Your task to perform on an android device: change keyboard looks Image 0: 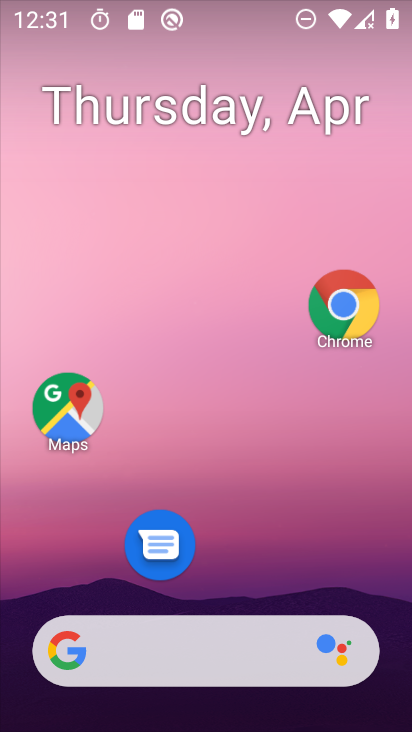
Step 0: drag from (248, 579) to (306, 60)
Your task to perform on an android device: change keyboard looks Image 1: 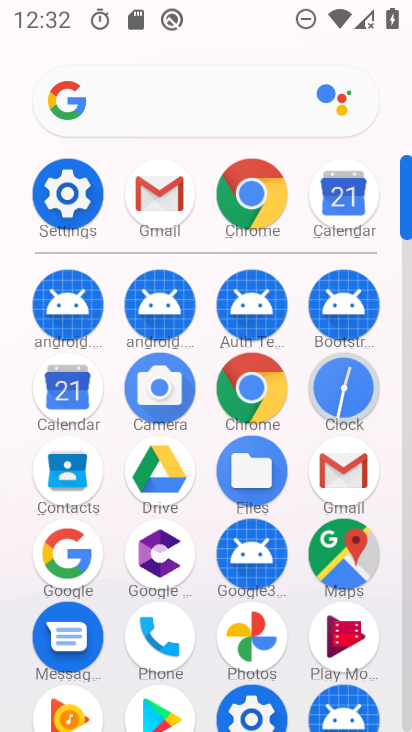
Step 1: click (79, 226)
Your task to perform on an android device: change keyboard looks Image 2: 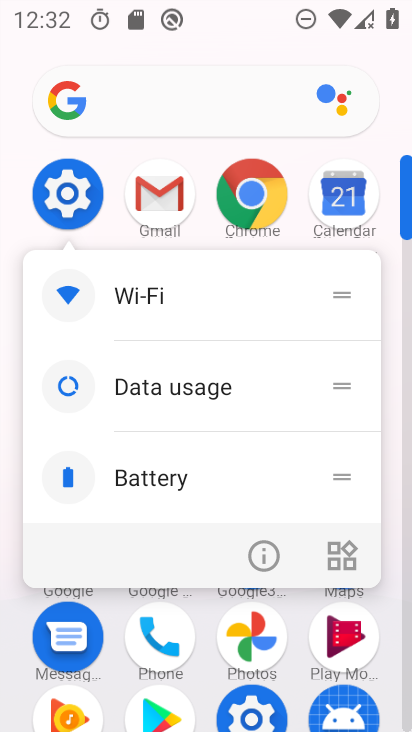
Step 2: click (69, 189)
Your task to perform on an android device: change keyboard looks Image 3: 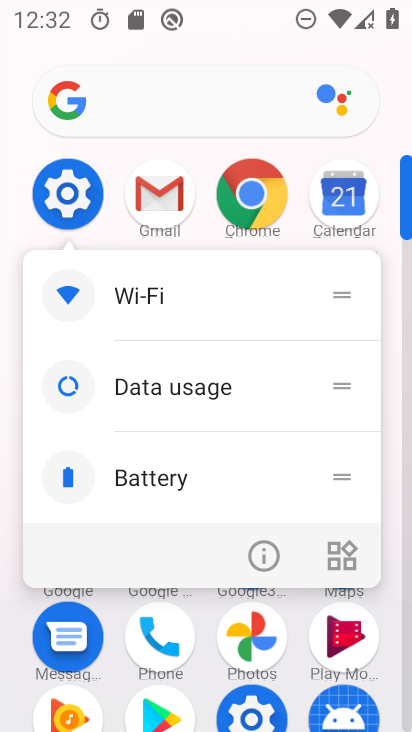
Step 3: click (65, 199)
Your task to perform on an android device: change keyboard looks Image 4: 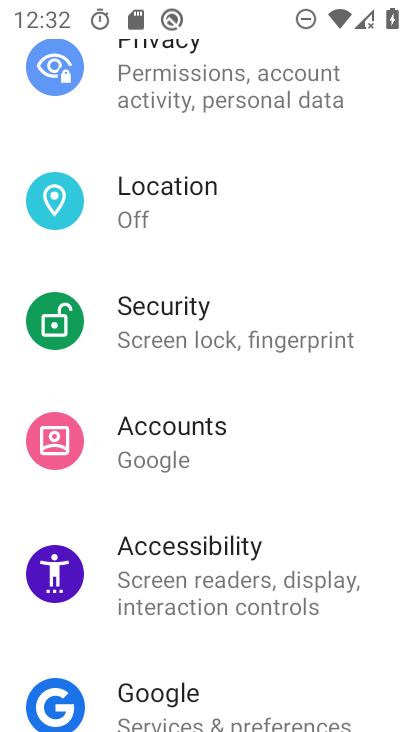
Step 4: drag from (218, 588) to (291, 187)
Your task to perform on an android device: change keyboard looks Image 5: 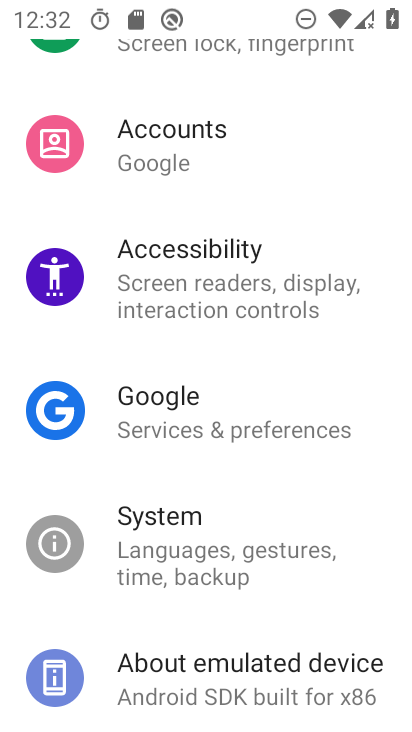
Step 5: click (206, 557)
Your task to perform on an android device: change keyboard looks Image 6: 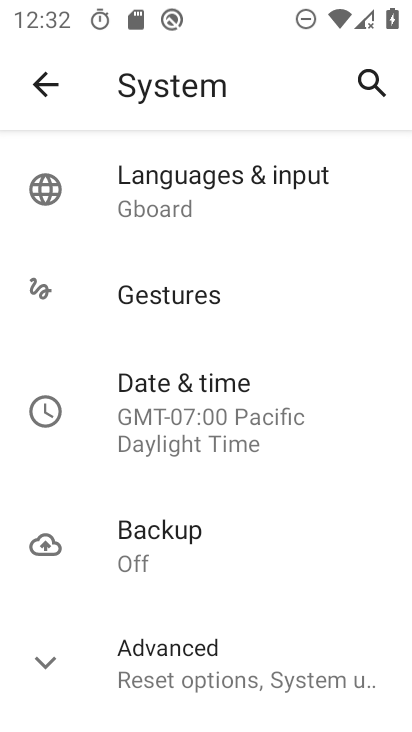
Step 6: click (294, 205)
Your task to perform on an android device: change keyboard looks Image 7: 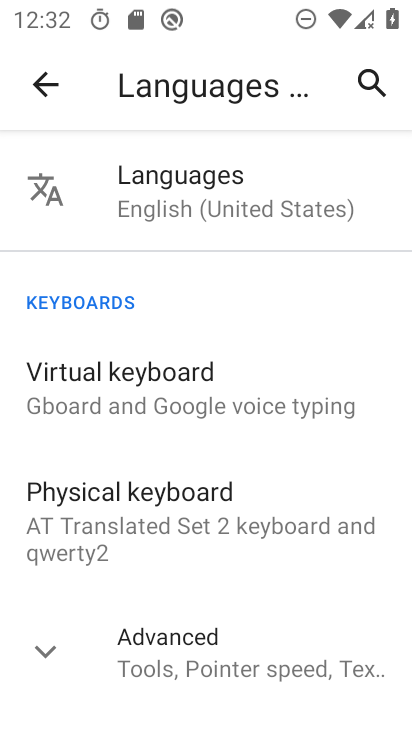
Step 7: click (247, 392)
Your task to perform on an android device: change keyboard looks Image 8: 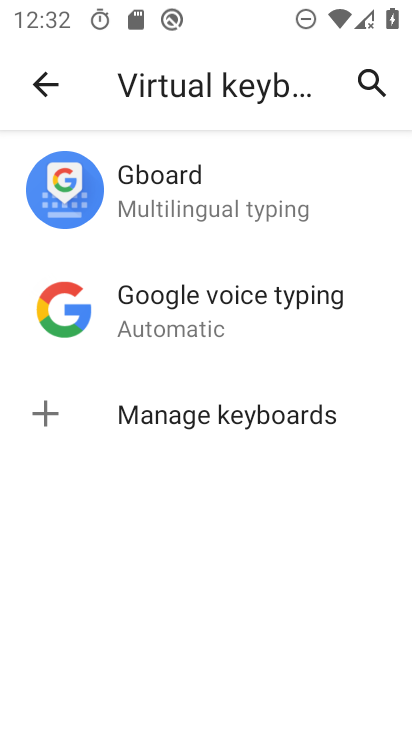
Step 8: click (268, 211)
Your task to perform on an android device: change keyboard looks Image 9: 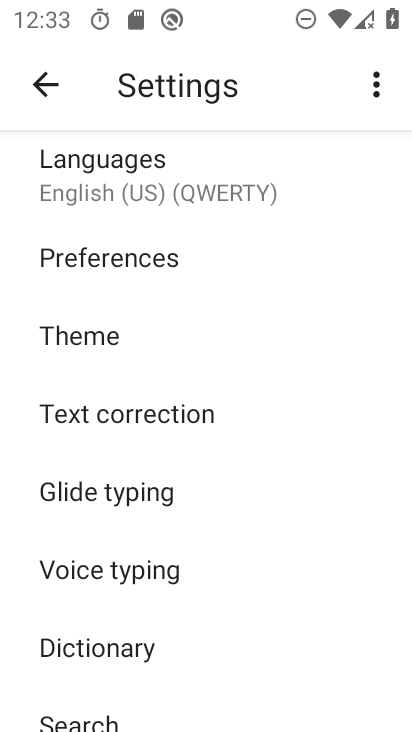
Step 9: click (130, 329)
Your task to perform on an android device: change keyboard looks Image 10: 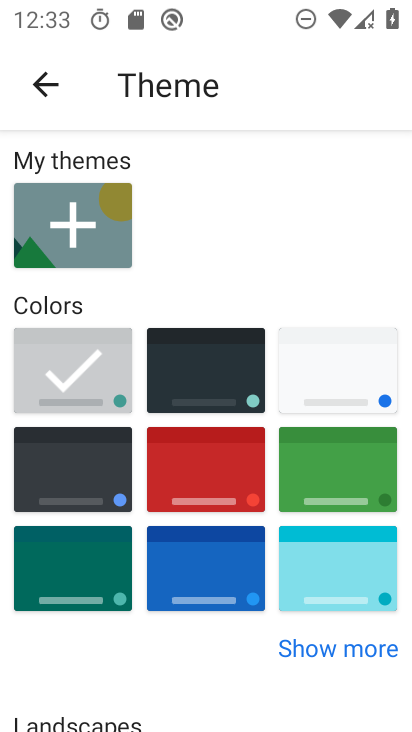
Step 10: click (318, 467)
Your task to perform on an android device: change keyboard looks Image 11: 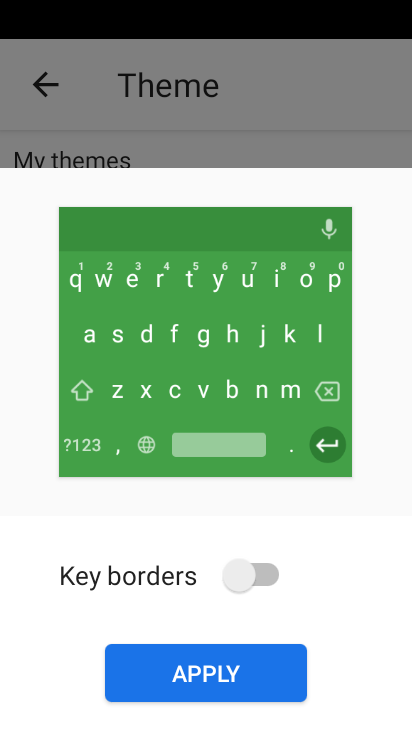
Step 11: click (259, 675)
Your task to perform on an android device: change keyboard looks Image 12: 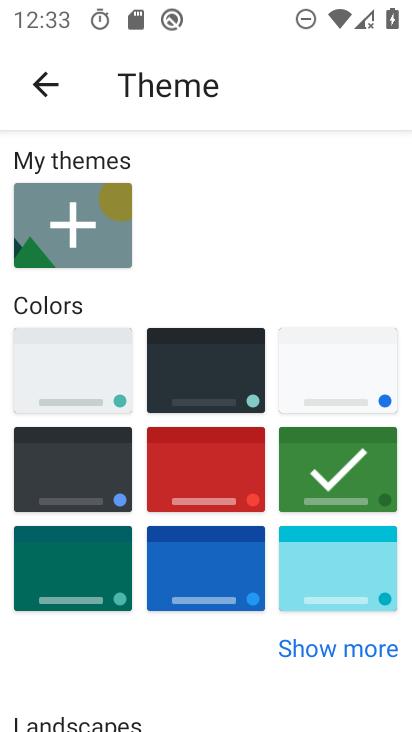
Step 12: task complete